Your task to perform on an android device: Open notification settings Image 0: 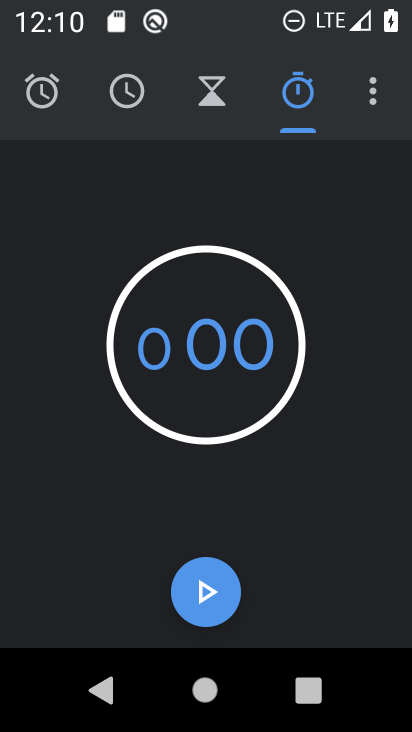
Step 0: press home button
Your task to perform on an android device: Open notification settings Image 1: 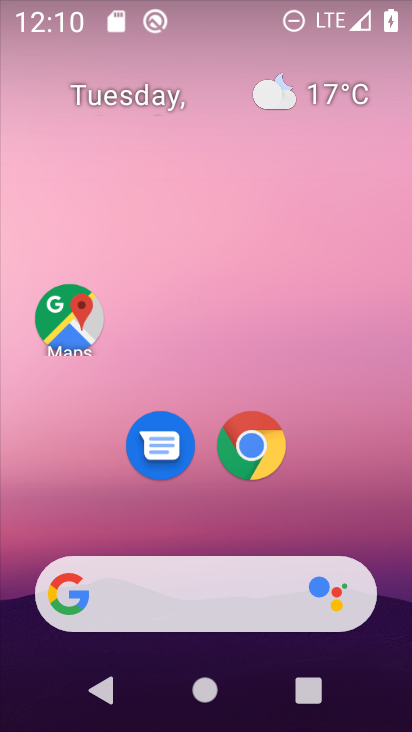
Step 1: drag from (398, 607) to (349, 210)
Your task to perform on an android device: Open notification settings Image 2: 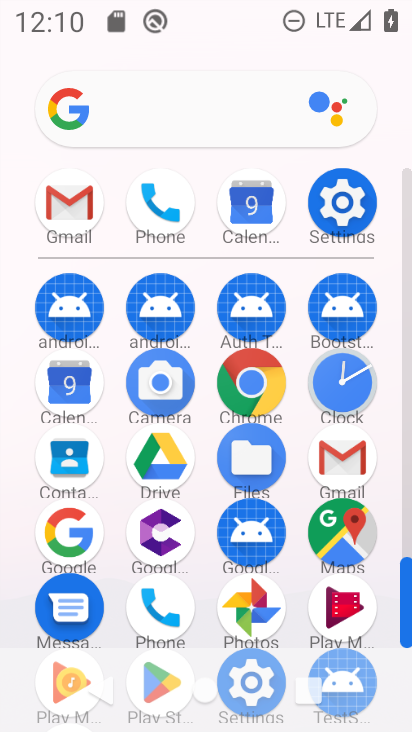
Step 2: click (407, 534)
Your task to perform on an android device: Open notification settings Image 3: 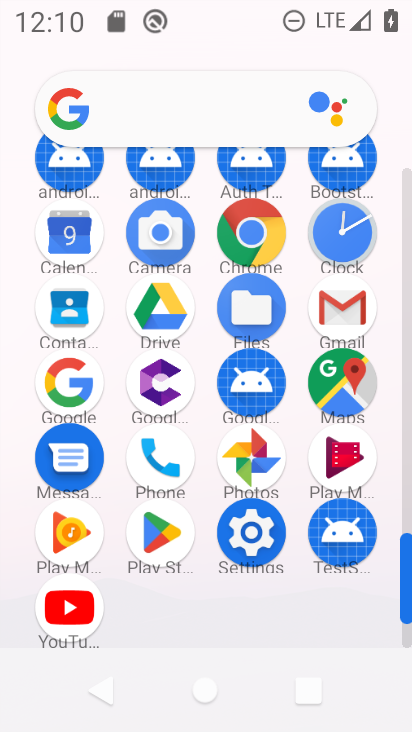
Step 3: click (251, 531)
Your task to perform on an android device: Open notification settings Image 4: 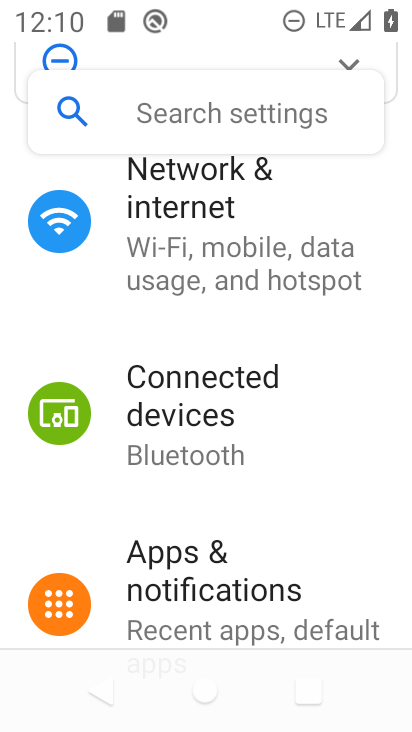
Step 4: drag from (348, 603) to (327, 460)
Your task to perform on an android device: Open notification settings Image 5: 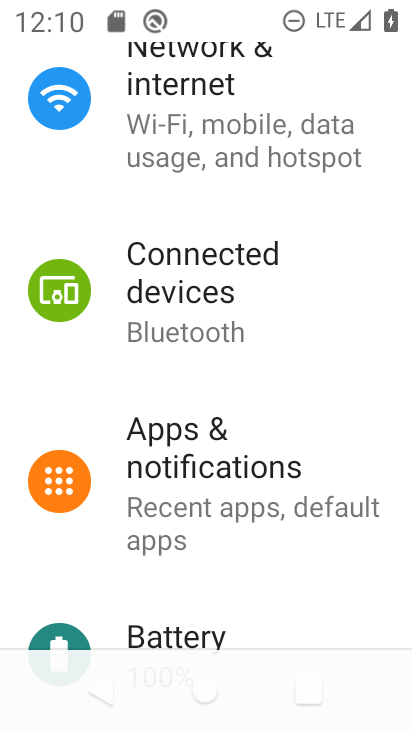
Step 5: click (191, 464)
Your task to perform on an android device: Open notification settings Image 6: 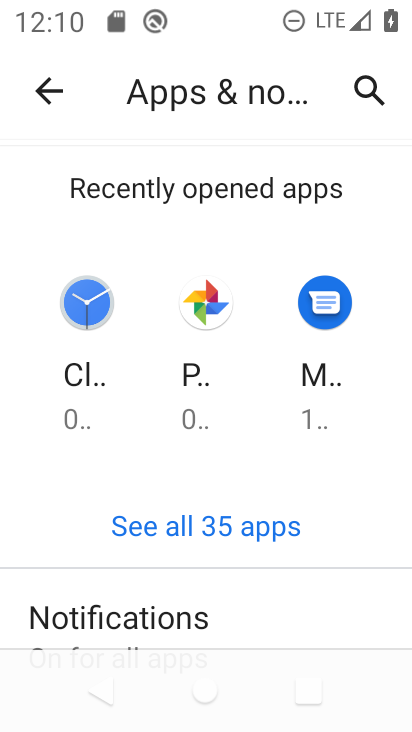
Step 6: drag from (357, 588) to (328, 269)
Your task to perform on an android device: Open notification settings Image 7: 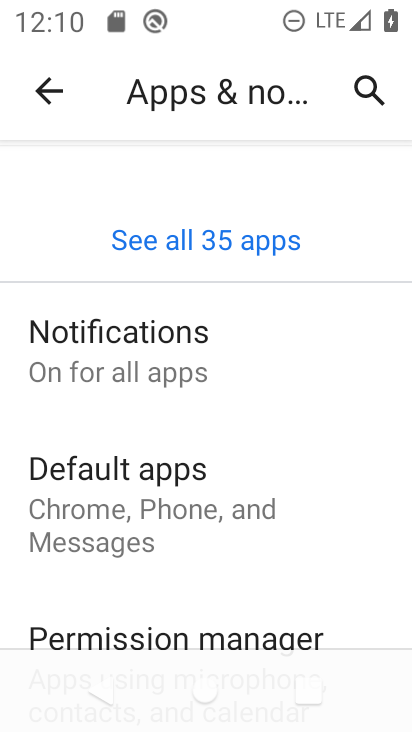
Step 7: click (150, 342)
Your task to perform on an android device: Open notification settings Image 8: 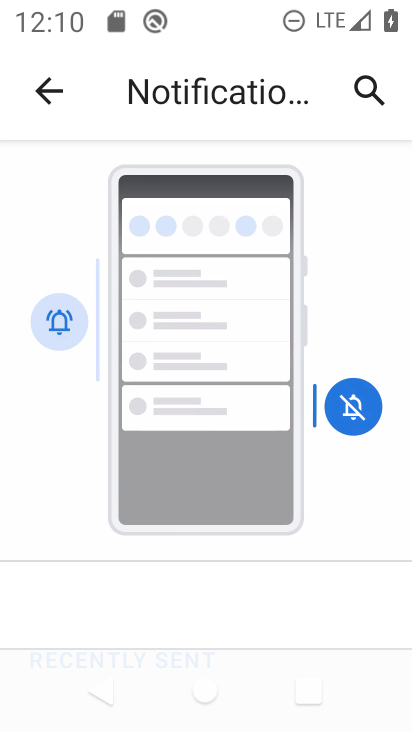
Step 8: drag from (280, 599) to (251, 206)
Your task to perform on an android device: Open notification settings Image 9: 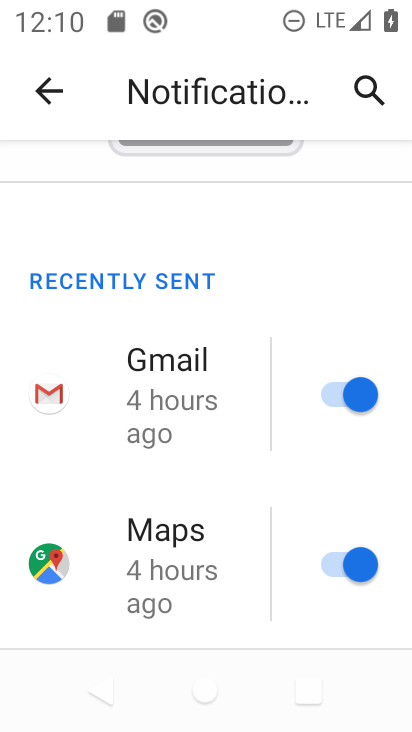
Step 9: drag from (278, 525) to (209, 152)
Your task to perform on an android device: Open notification settings Image 10: 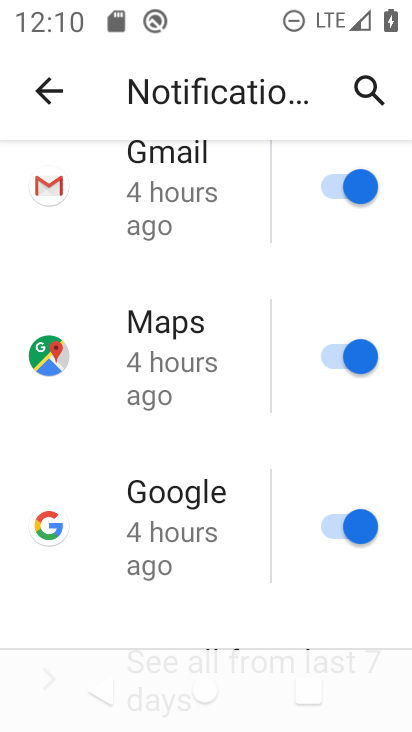
Step 10: drag from (291, 599) to (241, 204)
Your task to perform on an android device: Open notification settings Image 11: 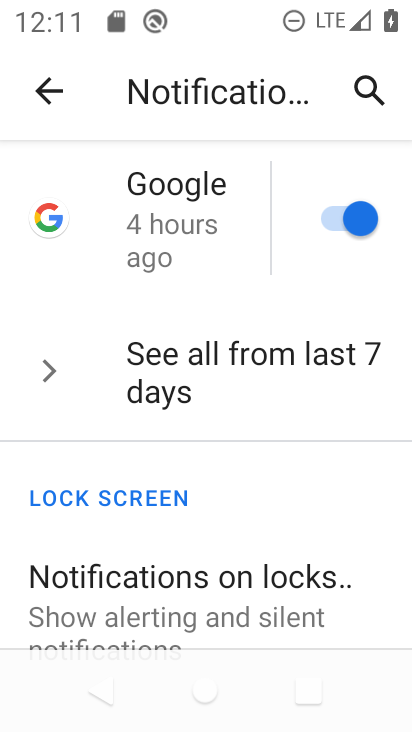
Step 11: drag from (272, 508) to (249, 171)
Your task to perform on an android device: Open notification settings Image 12: 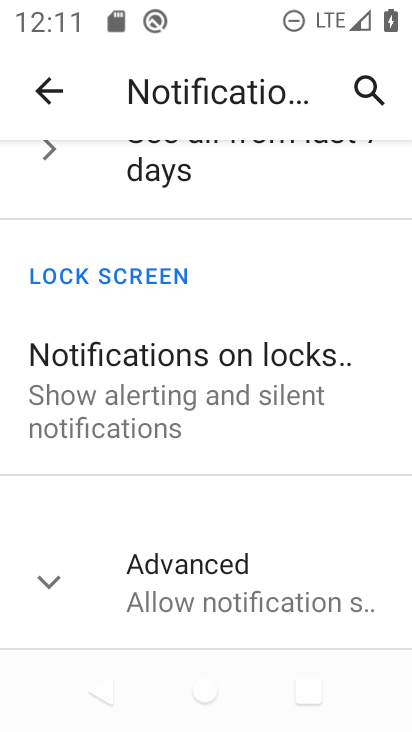
Step 12: click (45, 578)
Your task to perform on an android device: Open notification settings Image 13: 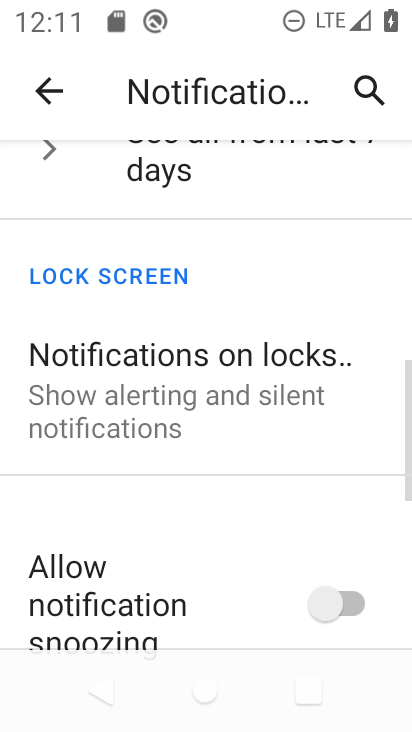
Step 13: task complete